Your task to perform on an android device: What's the latest news in tech? Image 0: 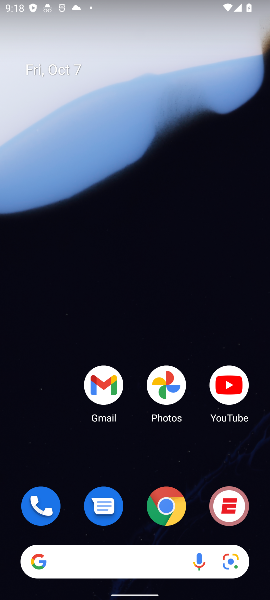
Step 0: click (165, 509)
Your task to perform on an android device: What's the latest news in tech? Image 1: 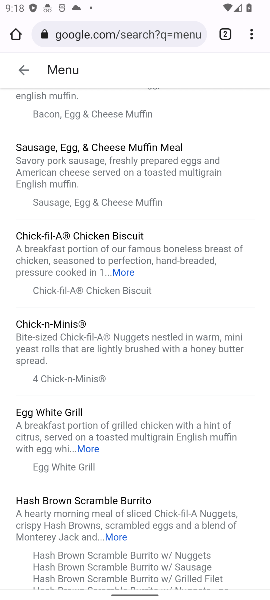
Step 1: click (134, 32)
Your task to perform on an android device: What's the latest news in tech? Image 2: 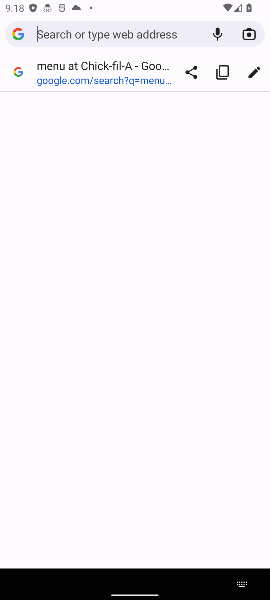
Step 2: type "latest news in tech"
Your task to perform on an android device: What's the latest news in tech? Image 3: 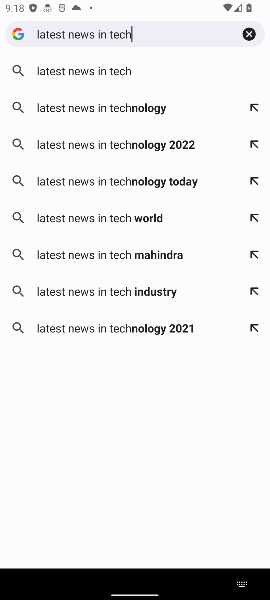
Step 3: click (99, 73)
Your task to perform on an android device: What's the latest news in tech? Image 4: 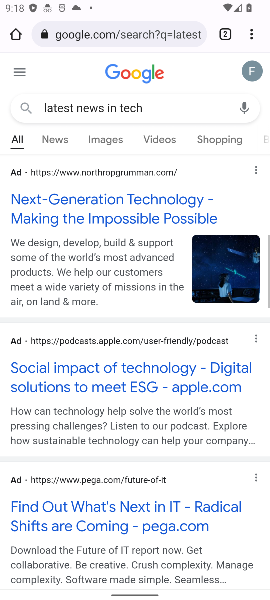
Step 4: click (52, 130)
Your task to perform on an android device: What's the latest news in tech? Image 5: 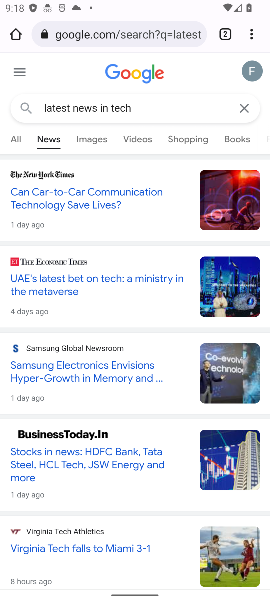
Step 5: click (103, 205)
Your task to perform on an android device: What's the latest news in tech? Image 6: 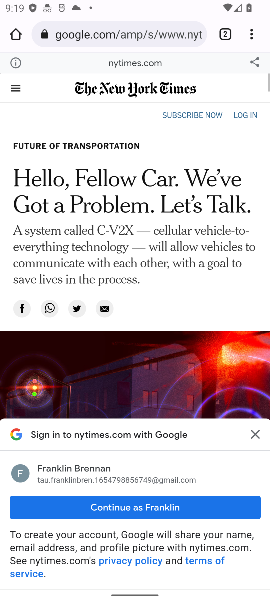
Step 6: click (203, 510)
Your task to perform on an android device: What's the latest news in tech? Image 7: 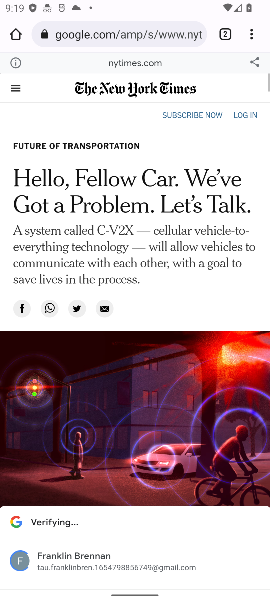
Step 7: drag from (155, 384) to (241, 143)
Your task to perform on an android device: What's the latest news in tech? Image 8: 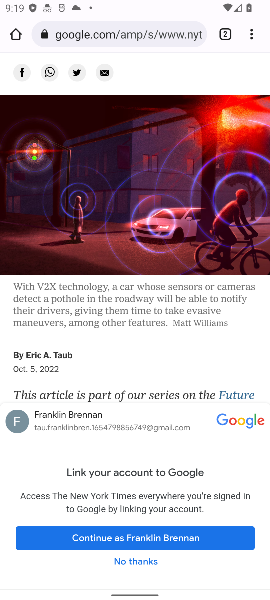
Step 8: click (212, 540)
Your task to perform on an android device: What's the latest news in tech? Image 9: 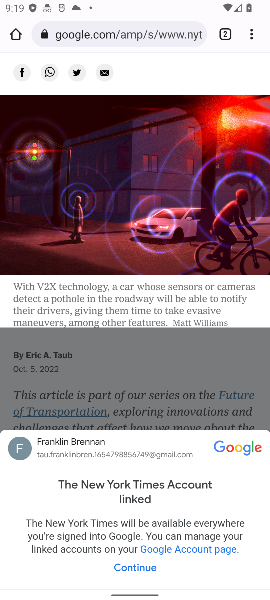
Step 9: task complete